Your task to perform on an android device: visit the assistant section in the google photos Image 0: 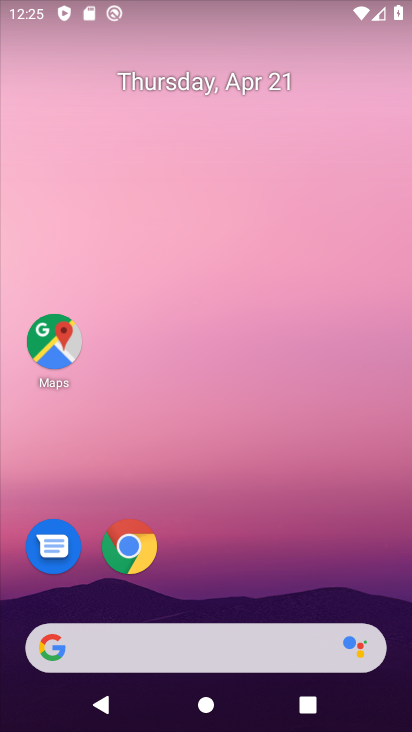
Step 0: drag from (250, 554) to (256, 156)
Your task to perform on an android device: visit the assistant section in the google photos Image 1: 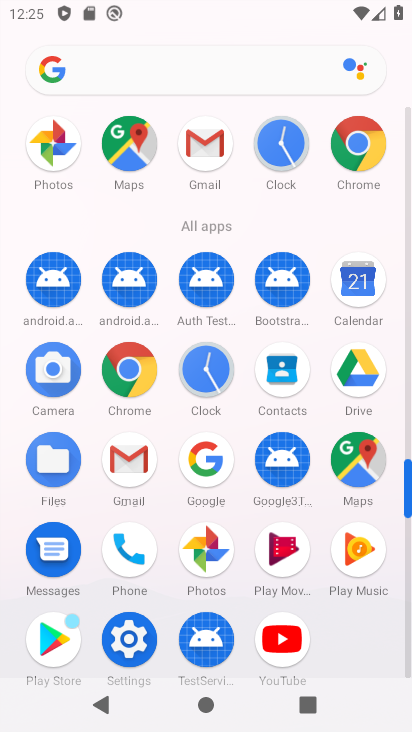
Step 1: click (62, 159)
Your task to perform on an android device: visit the assistant section in the google photos Image 2: 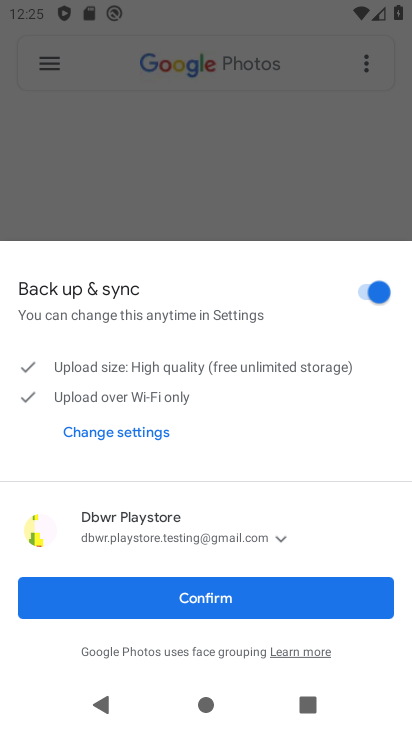
Step 2: click (257, 607)
Your task to perform on an android device: visit the assistant section in the google photos Image 3: 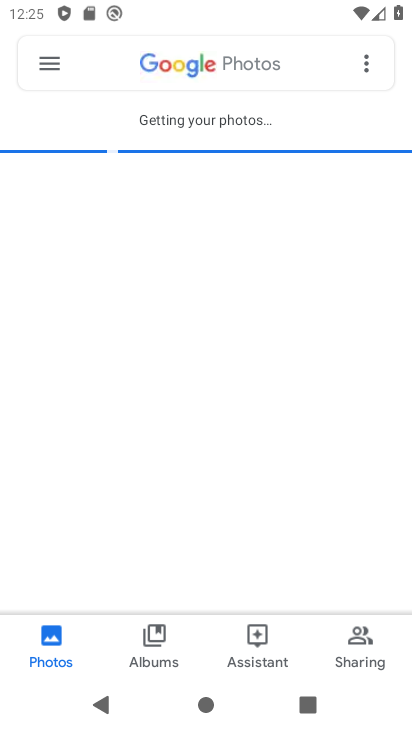
Step 3: click (257, 656)
Your task to perform on an android device: visit the assistant section in the google photos Image 4: 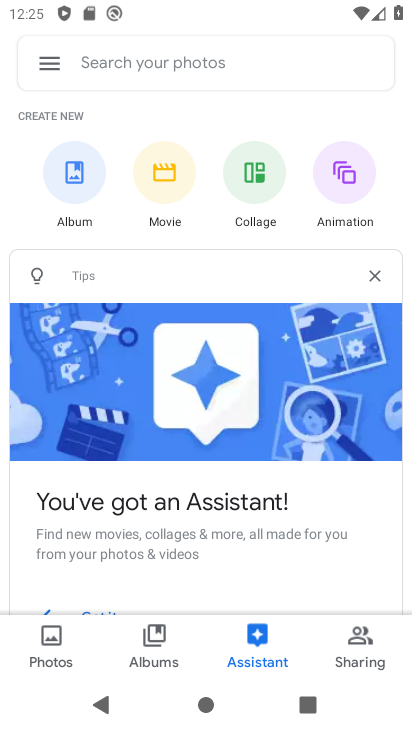
Step 4: task complete